Your task to perform on an android device: remove spam from my inbox in the gmail app Image 0: 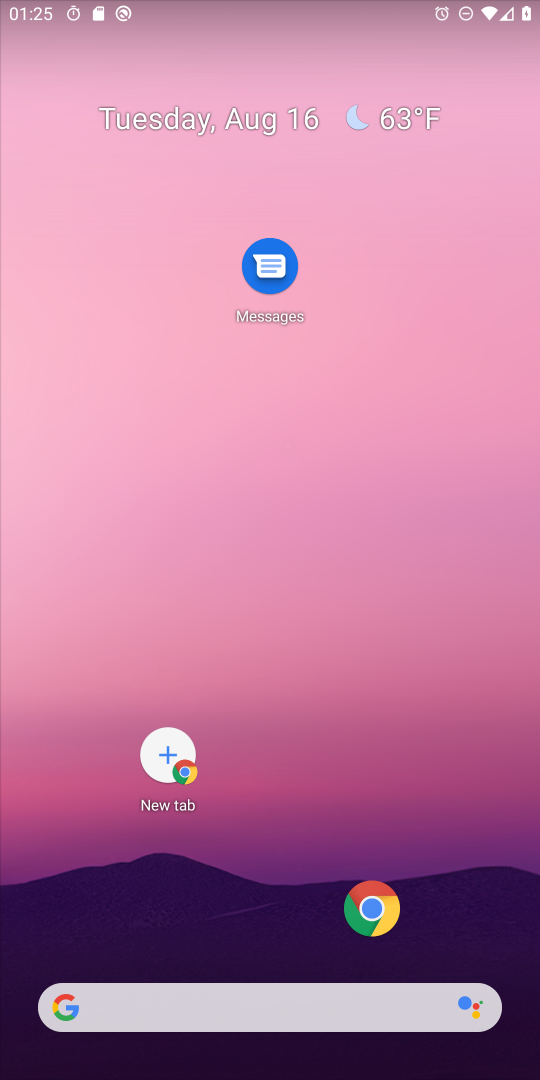
Step 0: drag from (251, 961) to (348, 282)
Your task to perform on an android device: remove spam from my inbox in the gmail app Image 1: 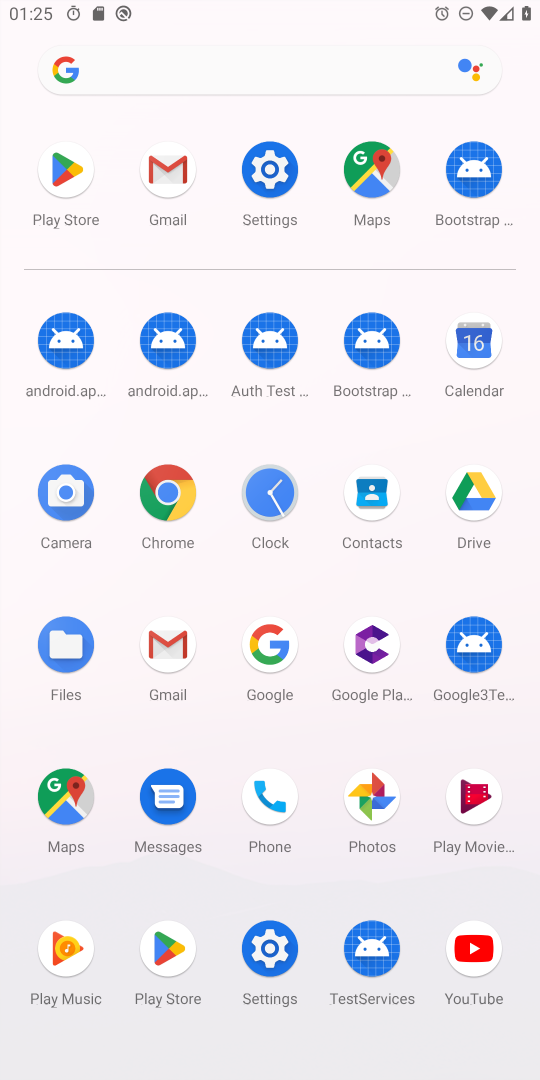
Step 1: click (154, 155)
Your task to perform on an android device: remove spam from my inbox in the gmail app Image 2: 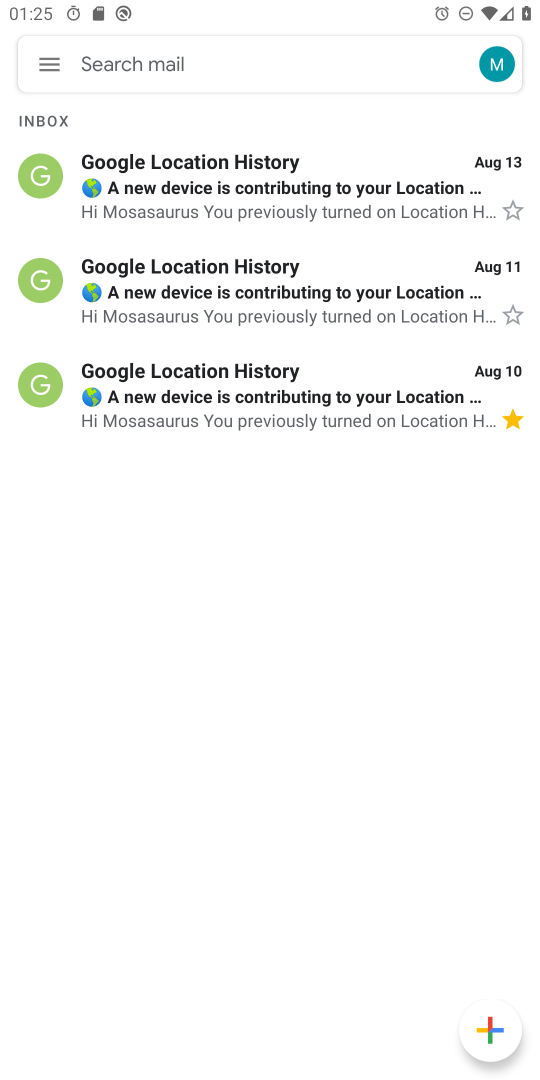
Step 2: click (66, 72)
Your task to perform on an android device: remove spam from my inbox in the gmail app Image 3: 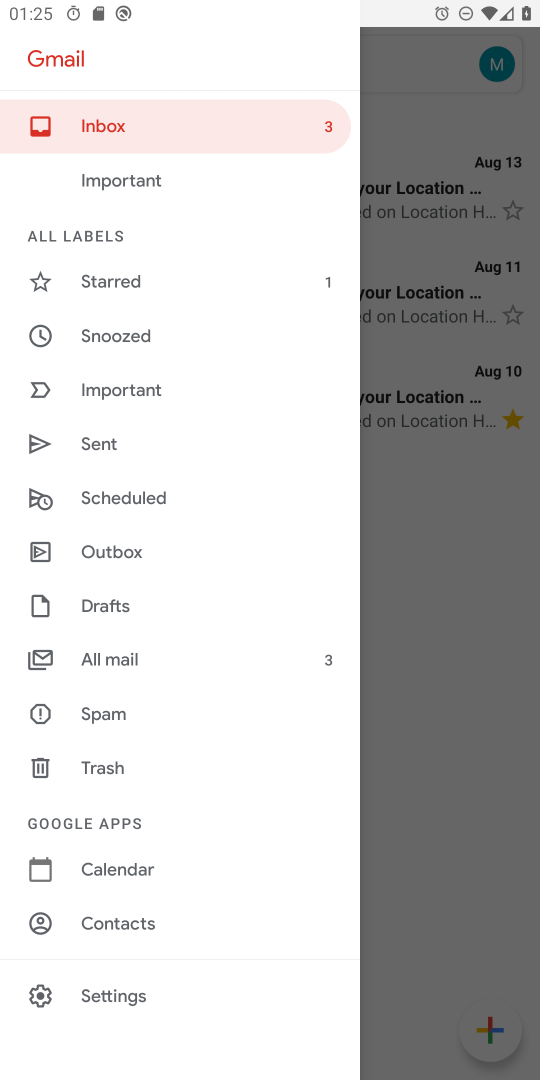
Step 3: click (76, 724)
Your task to perform on an android device: remove spam from my inbox in the gmail app Image 4: 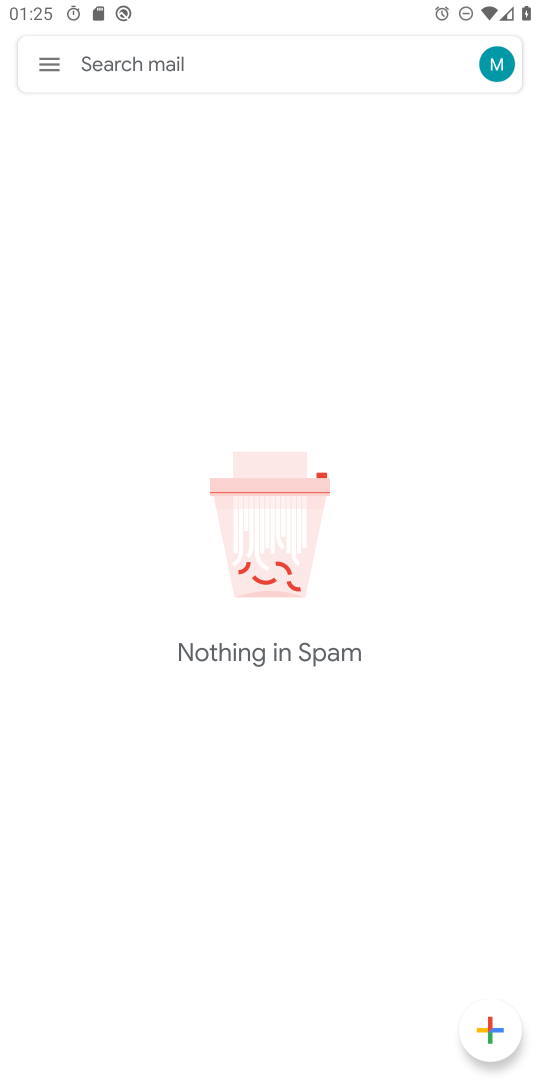
Step 4: task complete